Your task to perform on an android device: toggle airplane mode Image 0: 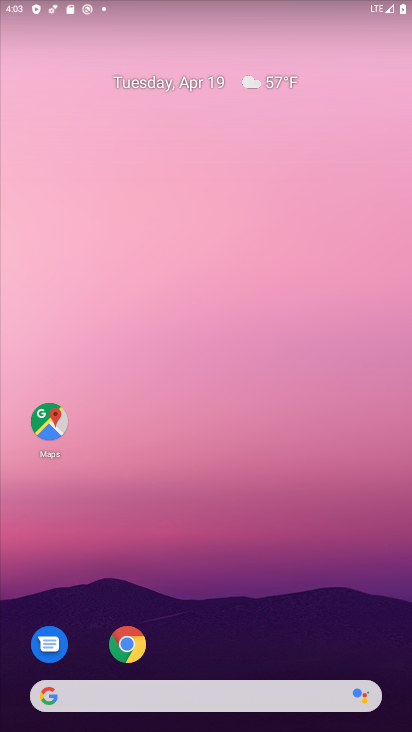
Step 0: drag from (272, 416) to (265, 50)
Your task to perform on an android device: toggle airplane mode Image 1: 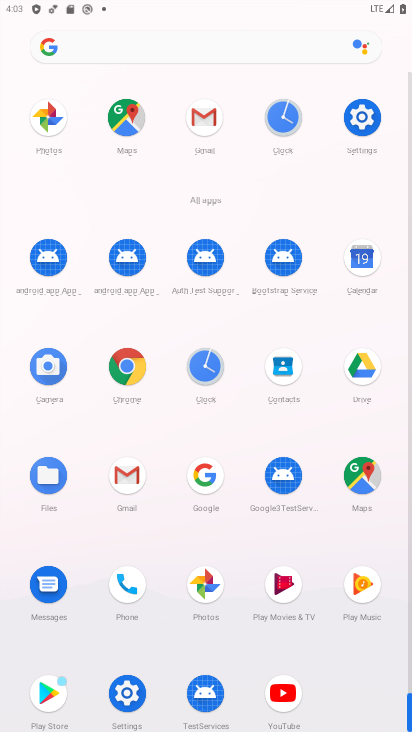
Step 1: click (368, 117)
Your task to perform on an android device: toggle airplane mode Image 2: 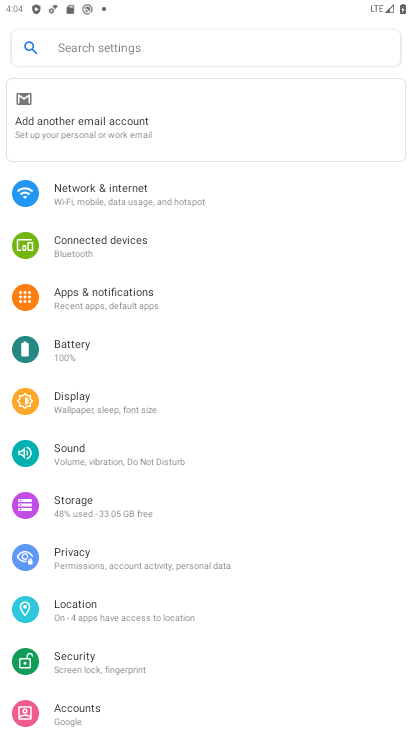
Step 2: click (135, 190)
Your task to perform on an android device: toggle airplane mode Image 3: 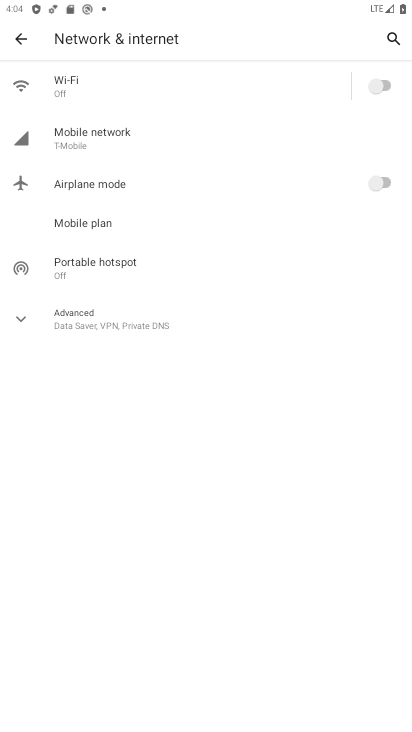
Step 3: click (381, 68)
Your task to perform on an android device: toggle airplane mode Image 4: 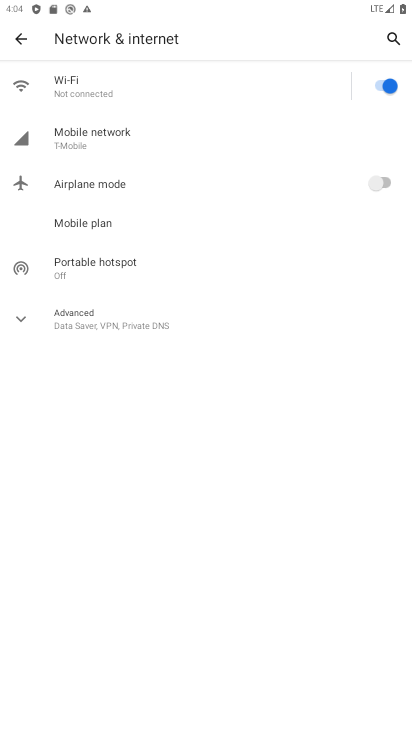
Step 4: task complete